Your task to perform on an android device: open chrome privacy settings Image 0: 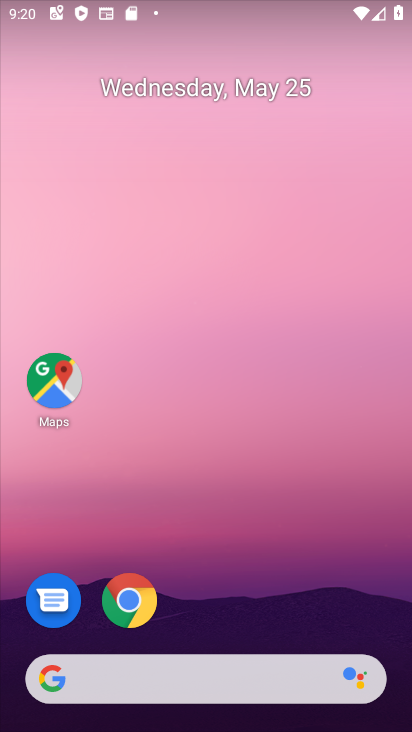
Step 0: drag from (263, 510) to (202, 25)
Your task to perform on an android device: open chrome privacy settings Image 1: 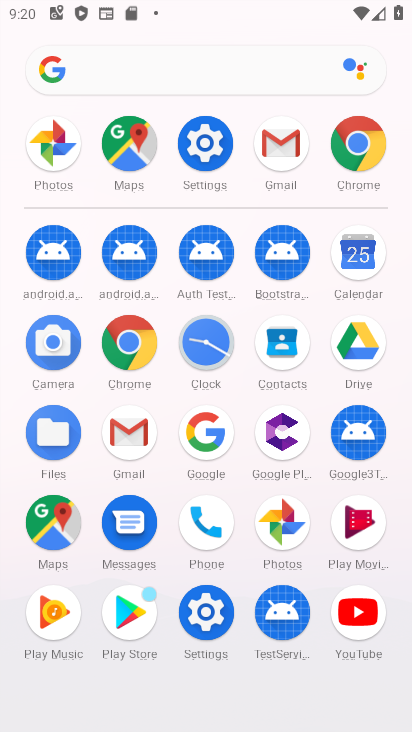
Step 1: click (125, 338)
Your task to perform on an android device: open chrome privacy settings Image 2: 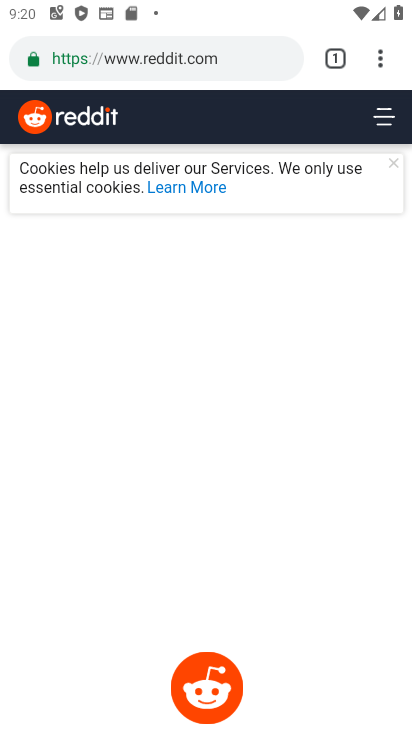
Step 2: drag from (385, 58) to (179, 622)
Your task to perform on an android device: open chrome privacy settings Image 3: 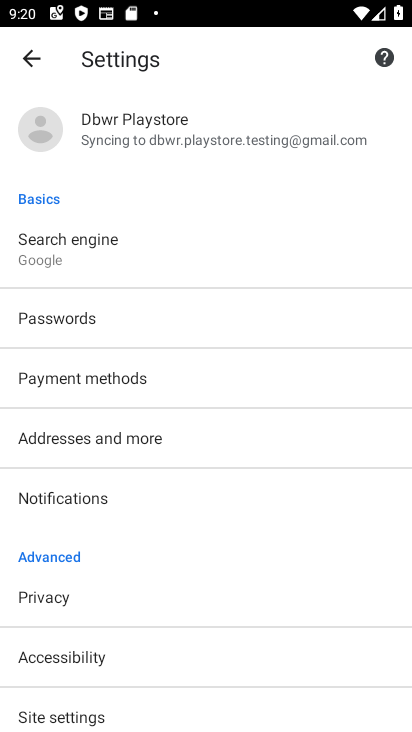
Step 3: click (105, 583)
Your task to perform on an android device: open chrome privacy settings Image 4: 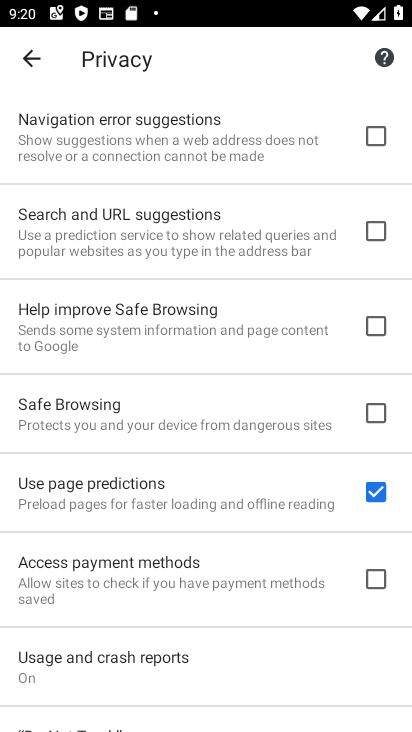
Step 4: task complete